Your task to perform on an android device: Go to location settings Image 0: 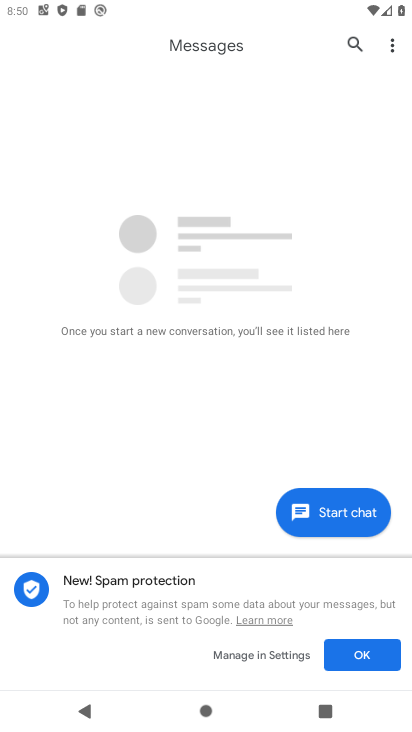
Step 0: press home button
Your task to perform on an android device: Go to location settings Image 1: 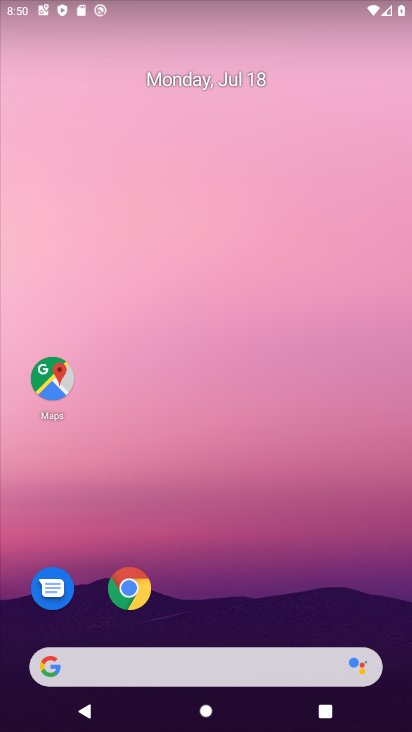
Step 1: drag from (244, 606) to (233, 205)
Your task to perform on an android device: Go to location settings Image 2: 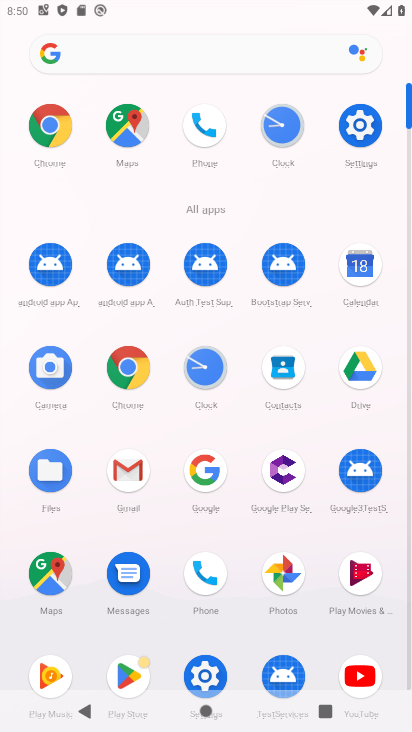
Step 2: click (364, 112)
Your task to perform on an android device: Go to location settings Image 3: 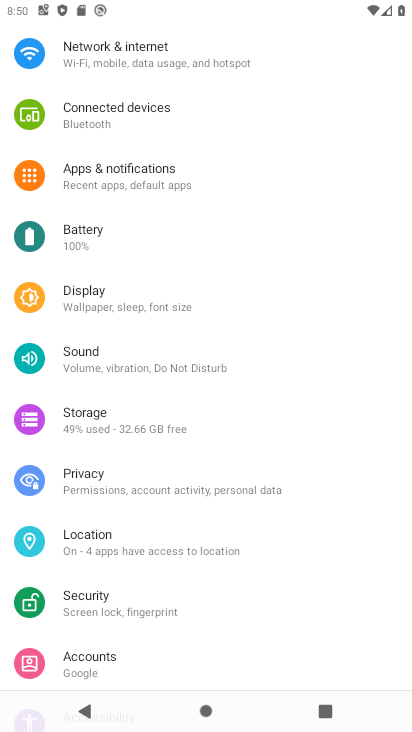
Step 3: click (133, 535)
Your task to perform on an android device: Go to location settings Image 4: 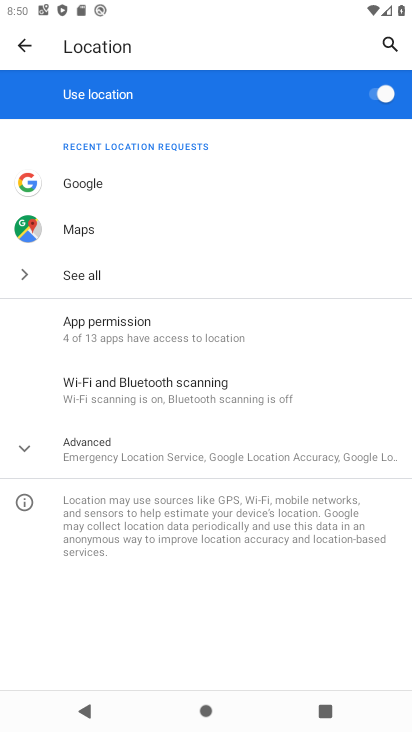
Step 4: task complete